Your task to perform on an android device: Open network settings Image 0: 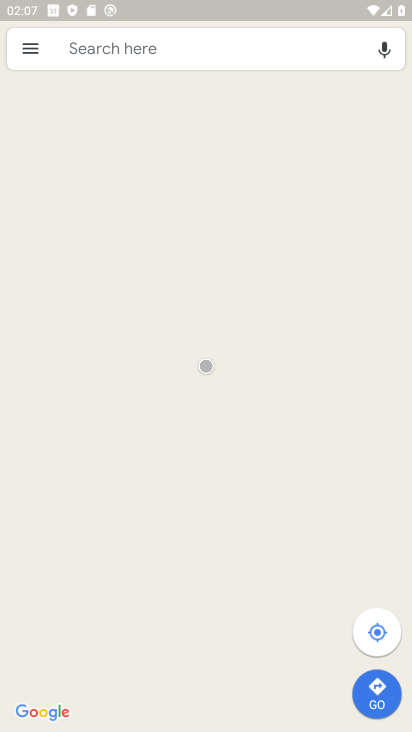
Step 0: press back button
Your task to perform on an android device: Open network settings Image 1: 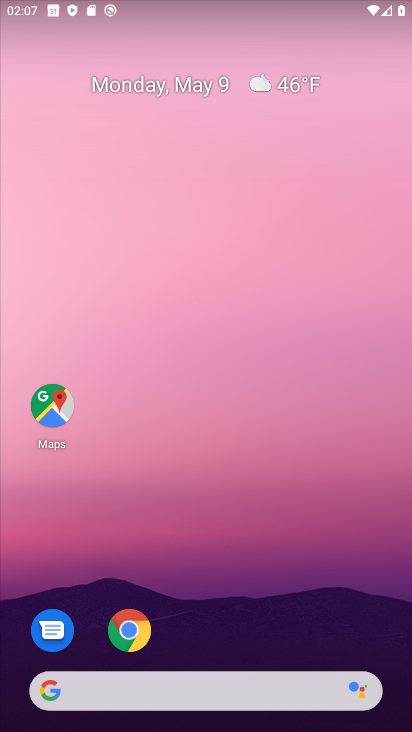
Step 1: drag from (224, 567) to (231, 64)
Your task to perform on an android device: Open network settings Image 2: 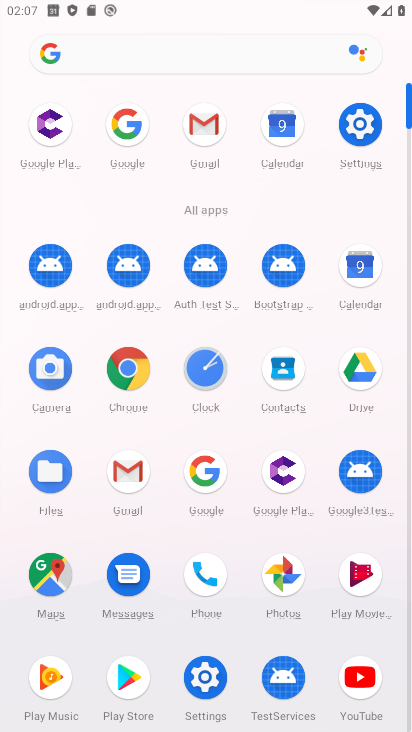
Step 2: click (361, 124)
Your task to perform on an android device: Open network settings Image 3: 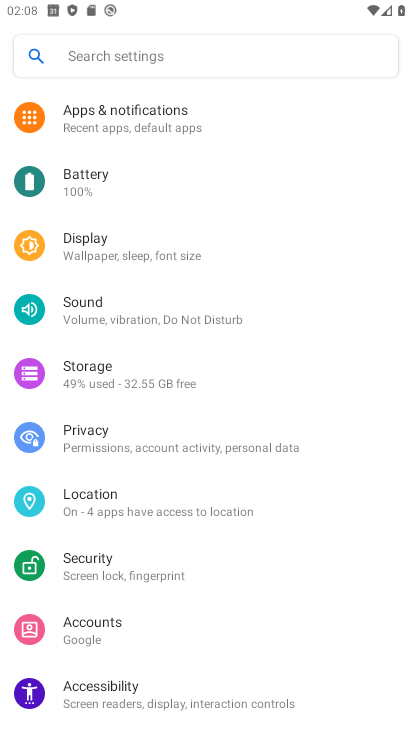
Step 3: drag from (199, 207) to (192, 404)
Your task to perform on an android device: Open network settings Image 4: 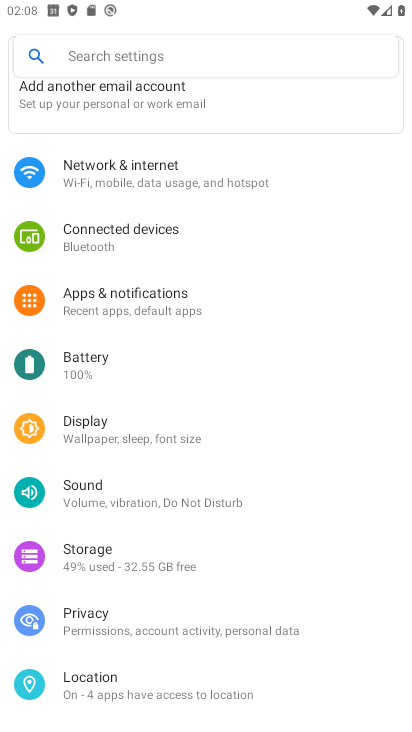
Step 4: click (149, 183)
Your task to perform on an android device: Open network settings Image 5: 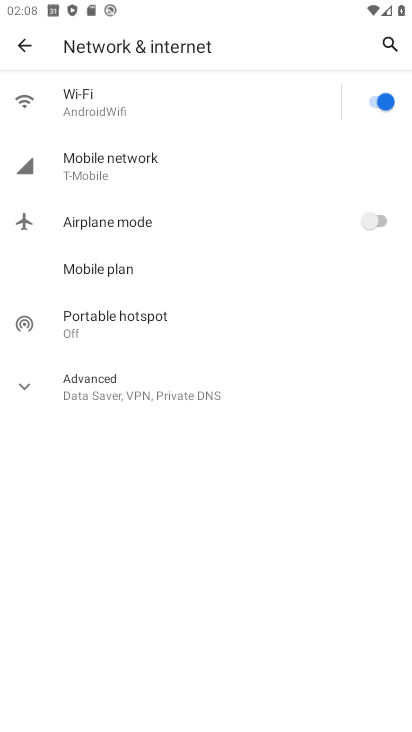
Step 5: click (114, 154)
Your task to perform on an android device: Open network settings Image 6: 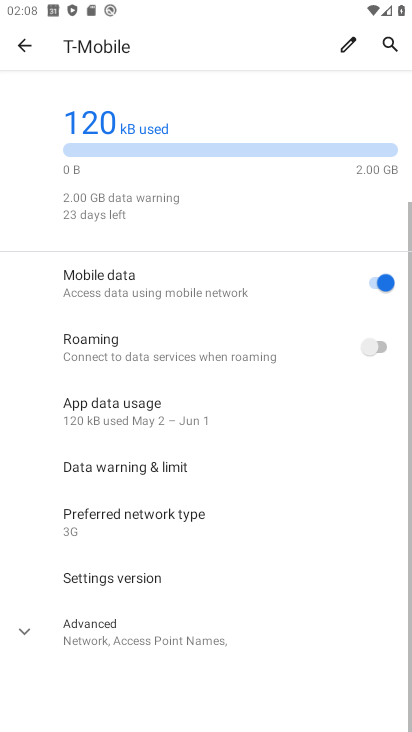
Step 6: task complete